Your task to perform on an android device: change text size in settings app Image 0: 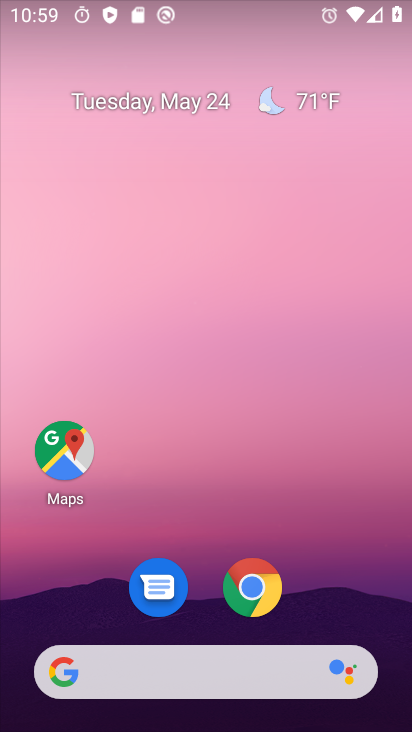
Step 0: drag from (393, 703) to (150, 49)
Your task to perform on an android device: change text size in settings app Image 1: 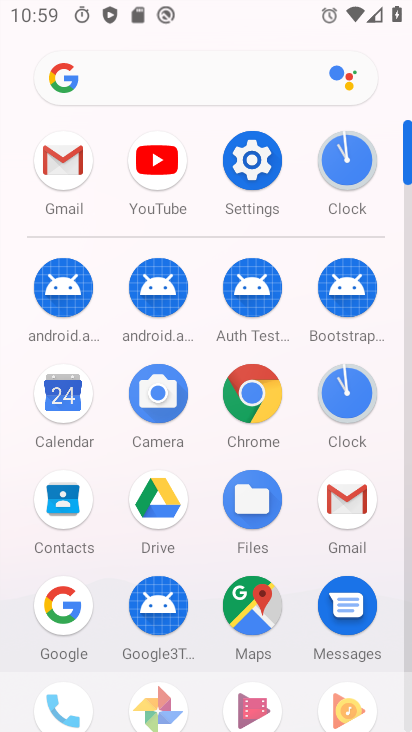
Step 1: click (237, 163)
Your task to perform on an android device: change text size in settings app Image 2: 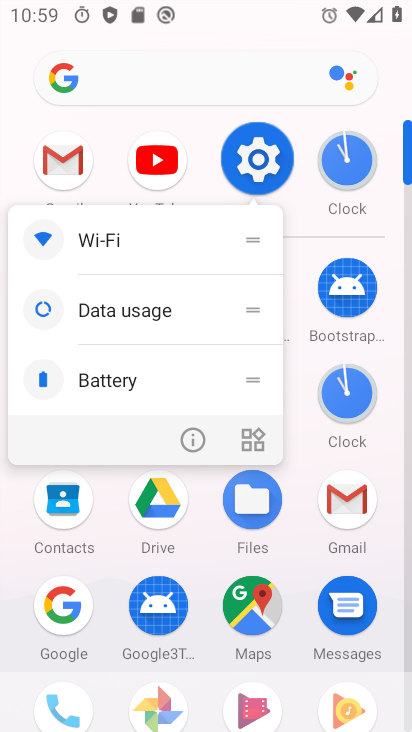
Step 2: click (242, 161)
Your task to perform on an android device: change text size in settings app Image 3: 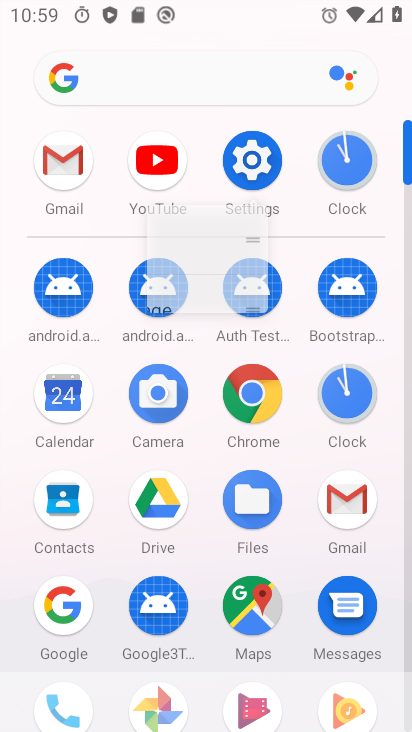
Step 3: click (242, 161)
Your task to perform on an android device: change text size in settings app Image 4: 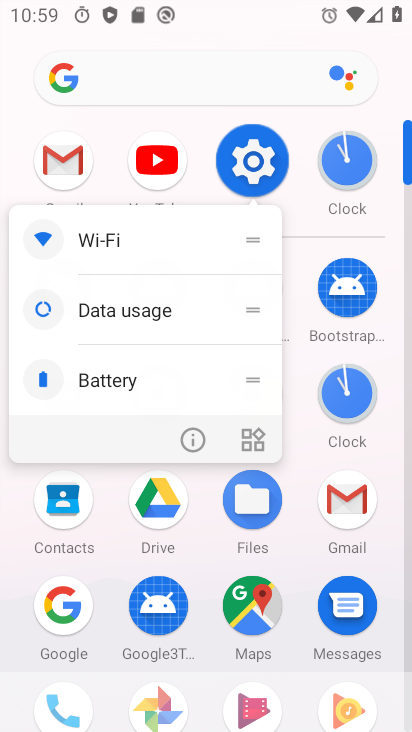
Step 4: click (243, 160)
Your task to perform on an android device: change text size in settings app Image 5: 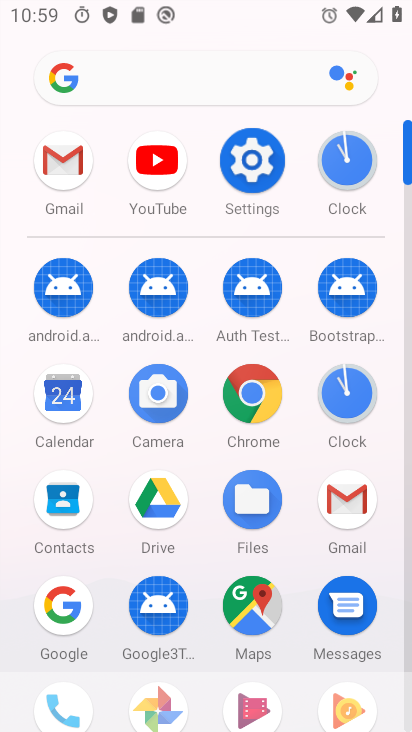
Step 5: click (243, 160)
Your task to perform on an android device: change text size in settings app Image 6: 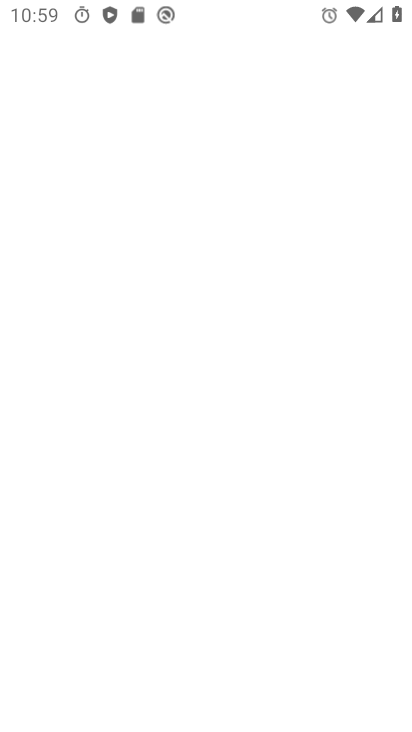
Step 6: click (244, 160)
Your task to perform on an android device: change text size in settings app Image 7: 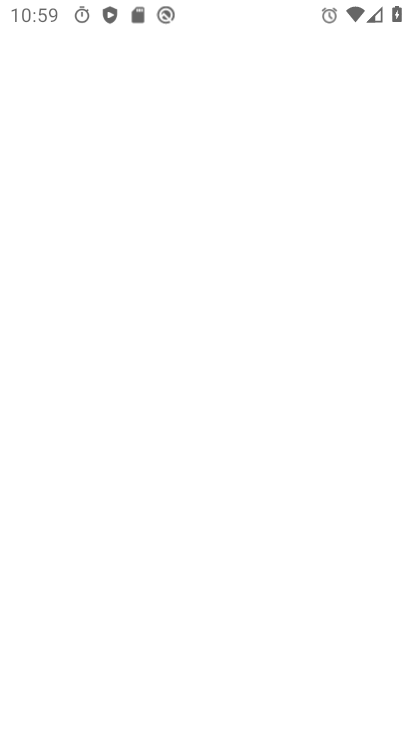
Step 7: click (244, 160)
Your task to perform on an android device: change text size in settings app Image 8: 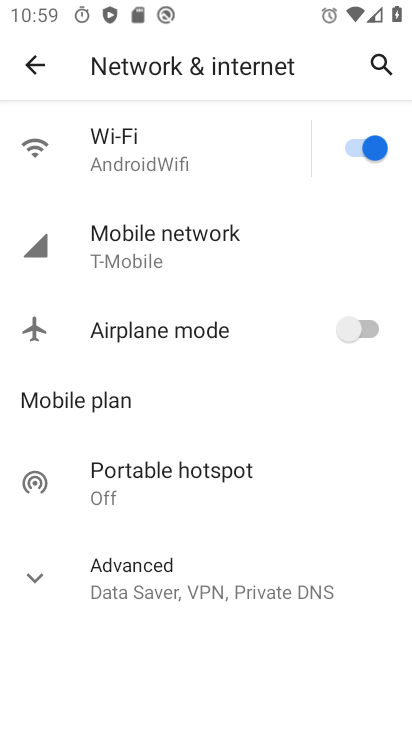
Step 8: click (27, 73)
Your task to perform on an android device: change text size in settings app Image 9: 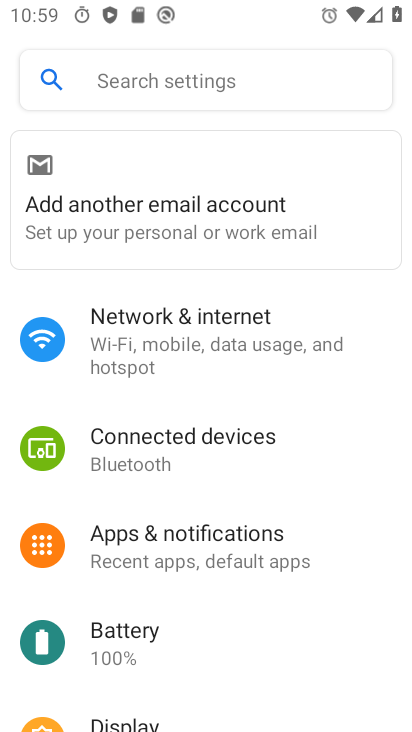
Step 9: drag from (210, 595) to (214, 267)
Your task to perform on an android device: change text size in settings app Image 10: 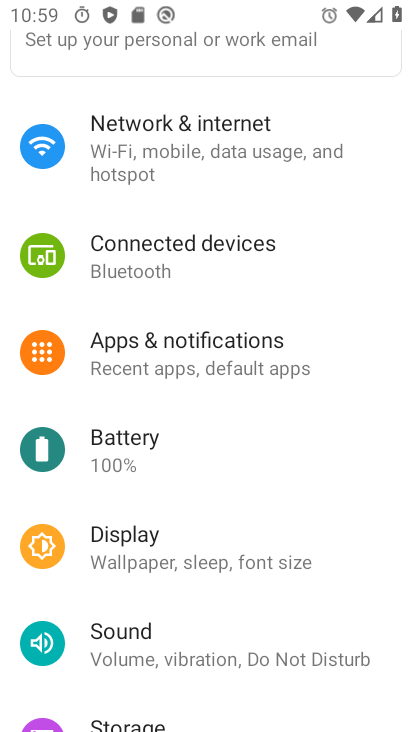
Step 10: drag from (264, 454) to (269, 199)
Your task to perform on an android device: change text size in settings app Image 11: 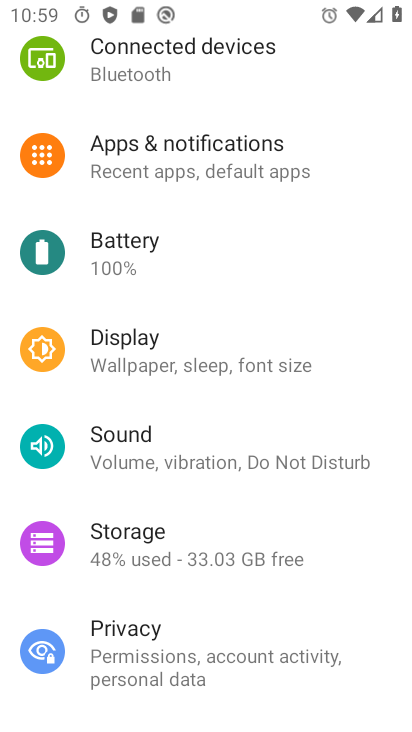
Step 11: drag from (256, 449) to (252, 209)
Your task to perform on an android device: change text size in settings app Image 12: 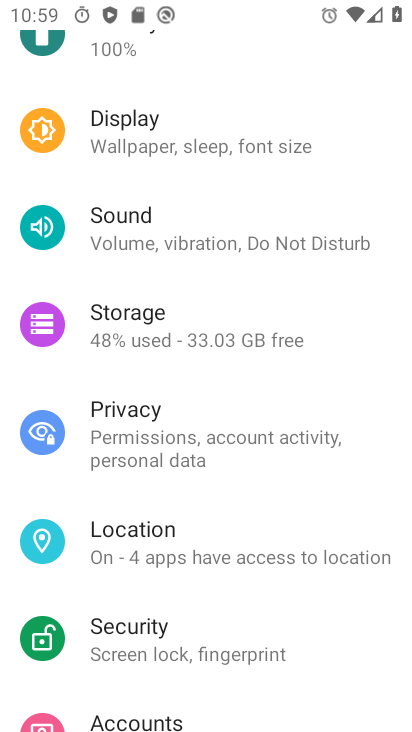
Step 12: drag from (201, 542) to (221, 186)
Your task to perform on an android device: change text size in settings app Image 13: 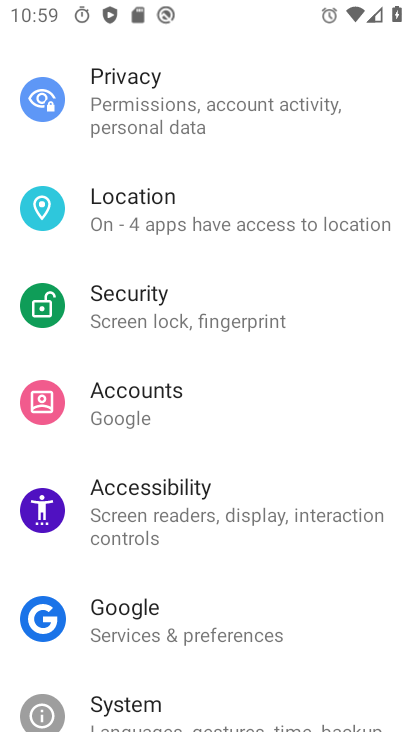
Step 13: drag from (228, 367) to (228, 130)
Your task to perform on an android device: change text size in settings app Image 14: 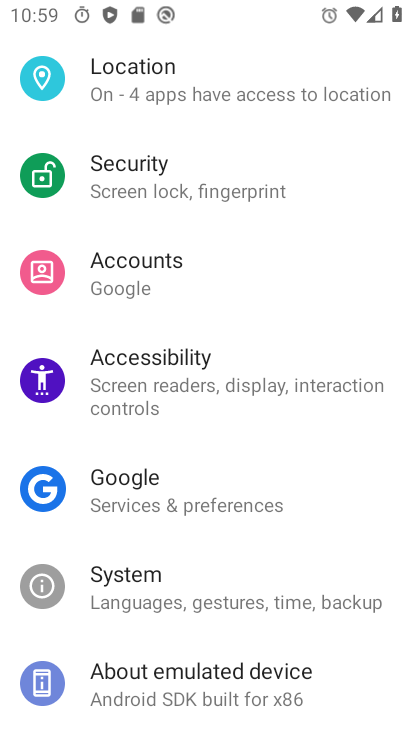
Step 14: drag from (212, 448) to (221, 172)
Your task to perform on an android device: change text size in settings app Image 15: 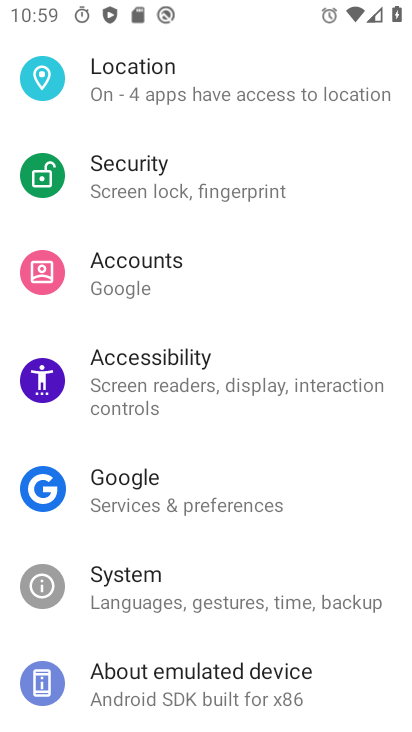
Step 15: drag from (217, 274) to (247, 181)
Your task to perform on an android device: change text size in settings app Image 16: 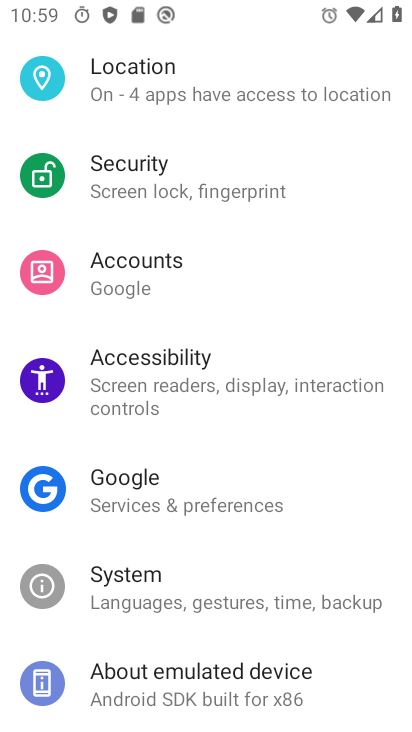
Step 16: drag from (185, 351) to (260, 624)
Your task to perform on an android device: change text size in settings app Image 17: 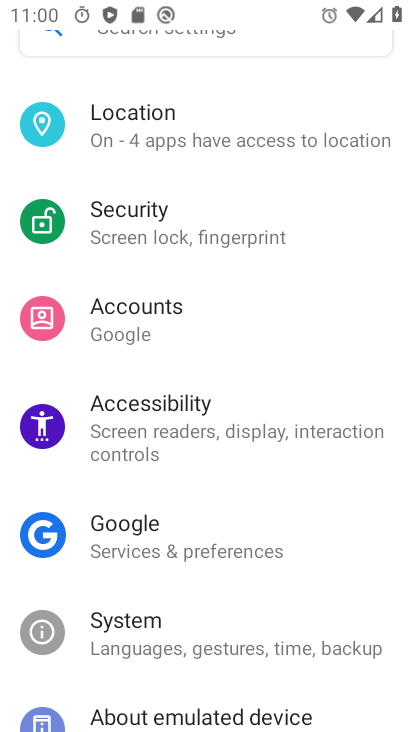
Step 17: drag from (204, 350) to (265, 621)
Your task to perform on an android device: change text size in settings app Image 18: 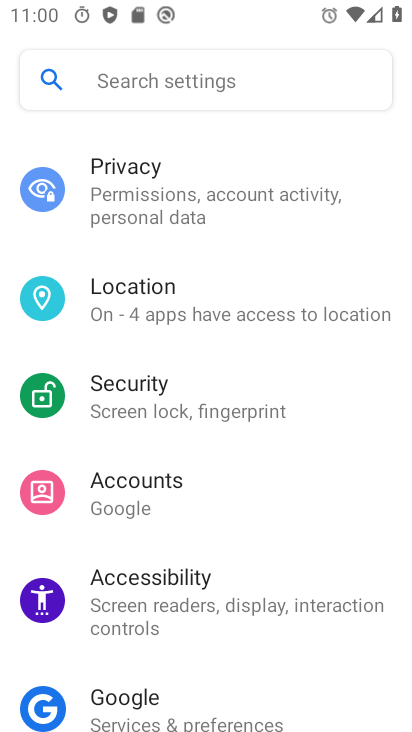
Step 18: drag from (190, 251) to (241, 455)
Your task to perform on an android device: change text size in settings app Image 19: 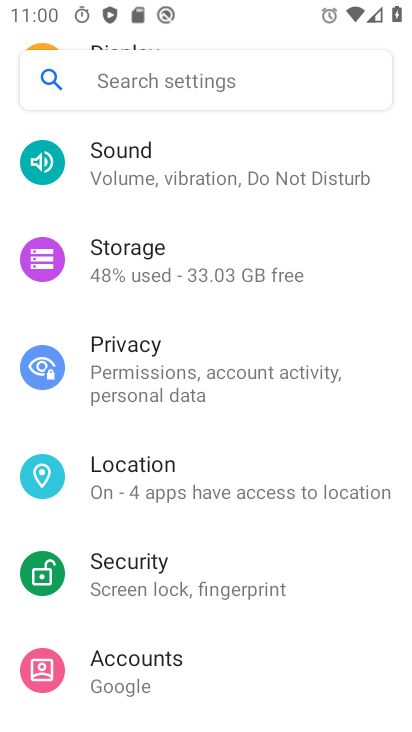
Step 19: drag from (182, 235) to (267, 514)
Your task to perform on an android device: change text size in settings app Image 20: 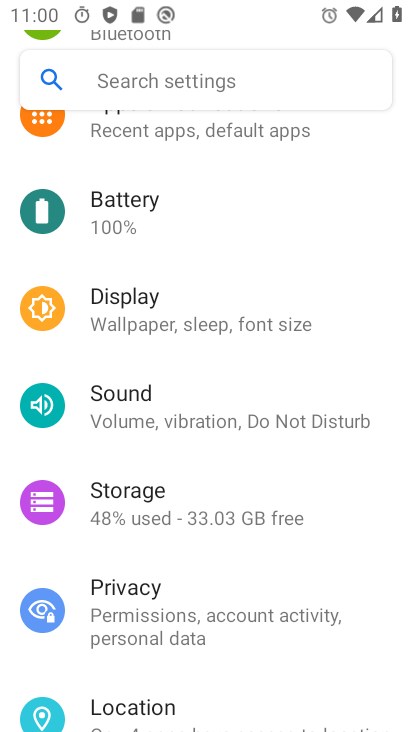
Step 20: drag from (225, 279) to (316, 534)
Your task to perform on an android device: change text size in settings app Image 21: 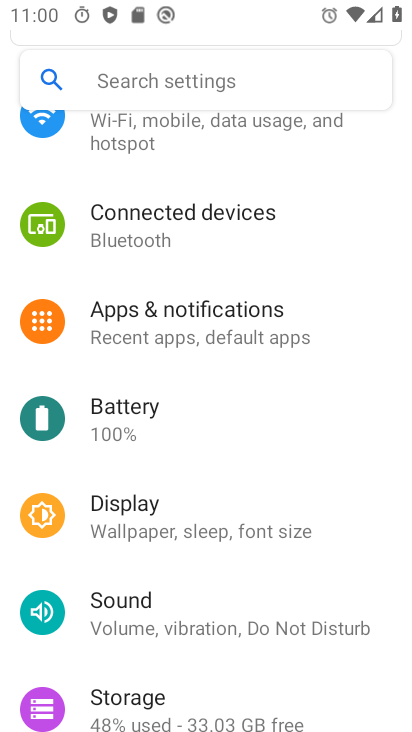
Step 21: click (138, 523)
Your task to perform on an android device: change text size in settings app Image 22: 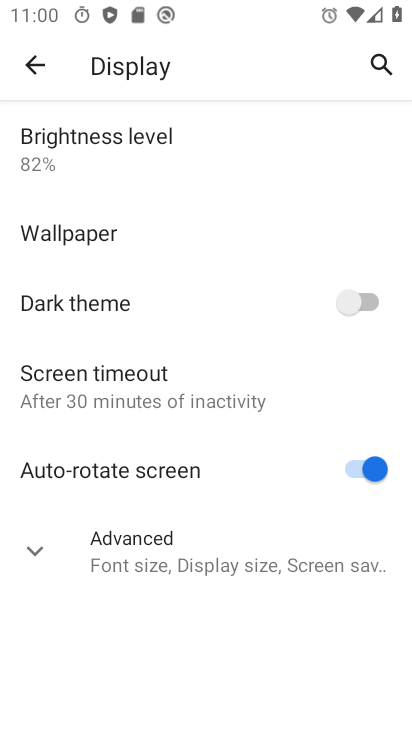
Step 22: click (134, 388)
Your task to perform on an android device: change text size in settings app Image 23: 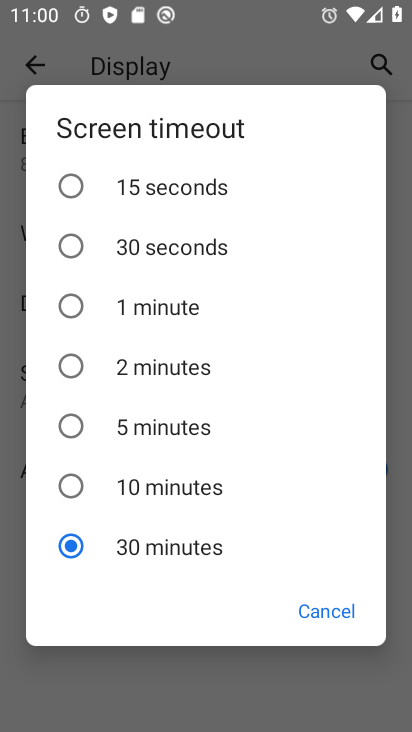
Step 23: click (70, 478)
Your task to perform on an android device: change text size in settings app Image 24: 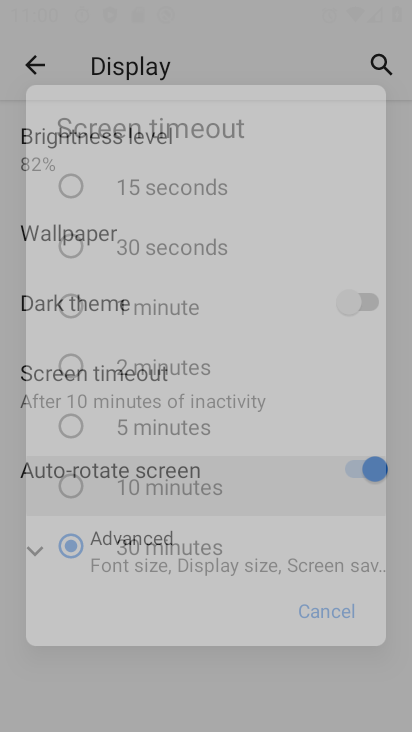
Step 24: click (71, 477)
Your task to perform on an android device: change text size in settings app Image 25: 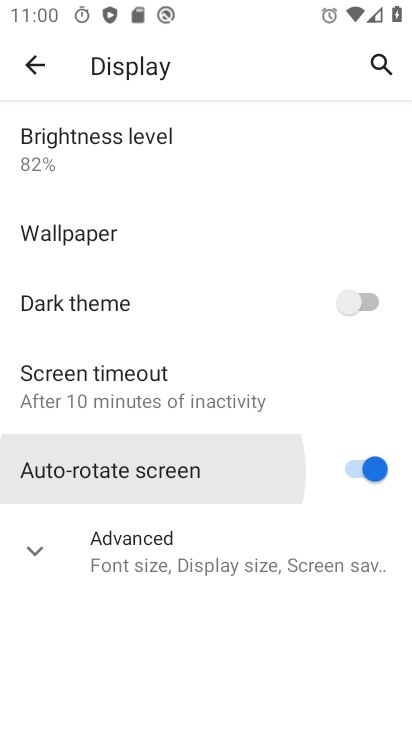
Step 25: click (72, 477)
Your task to perform on an android device: change text size in settings app Image 26: 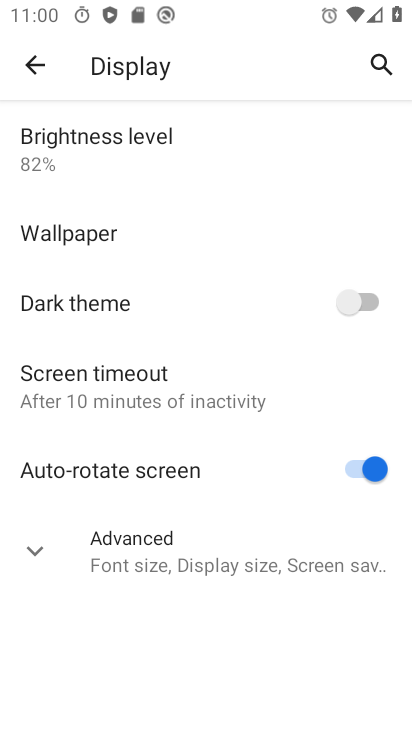
Step 26: task complete